Your task to perform on an android device: find photos in the google photos app Image 0: 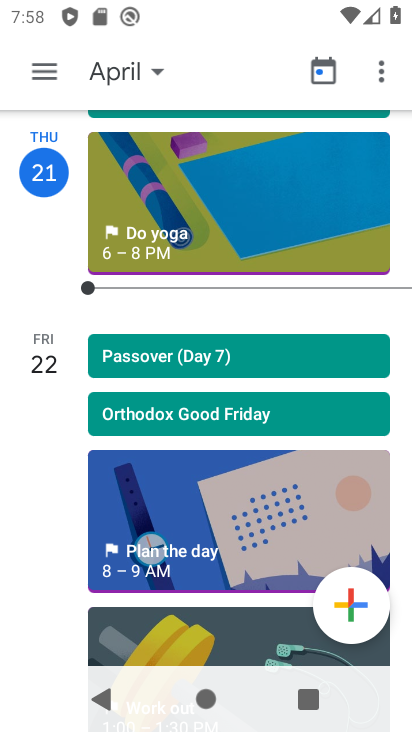
Step 0: press back button
Your task to perform on an android device: find photos in the google photos app Image 1: 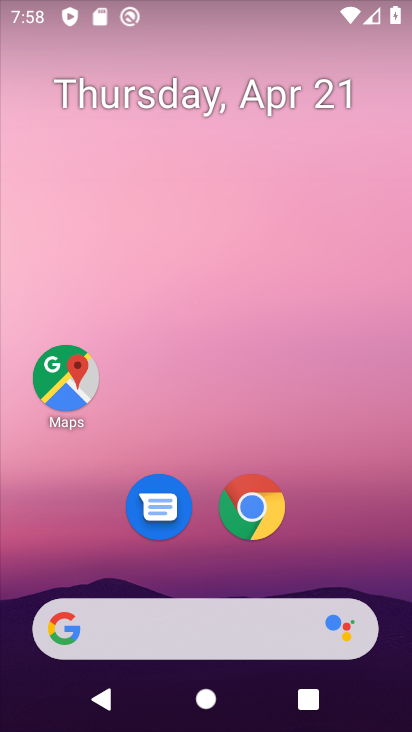
Step 1: drag from (205, 470) to (319, 20)
Your task to perform on an android device: find photos in the google photos app Image 2: 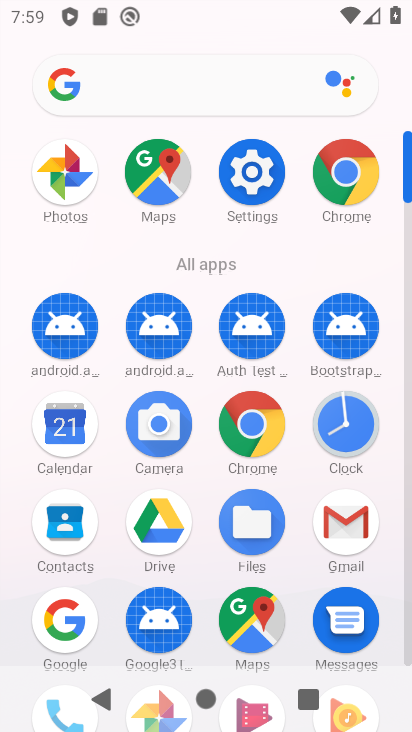
Step 2: drag from (187, 601) to (316, 116)
Your task to perform on an android device: find photos in the google photos app Image 3: 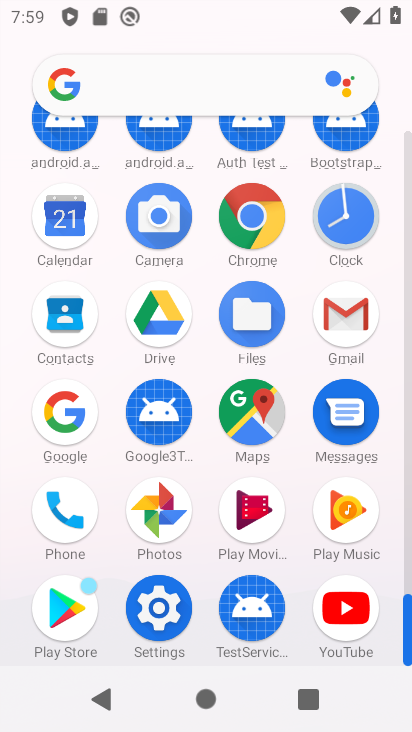
Step 3: click (160, 505)
Your task to perform on an android device: find photos in the google photos app Image 4: 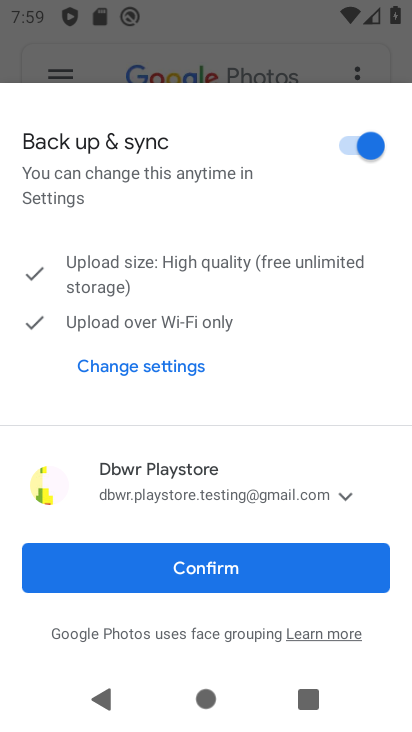
Step 4: click (186, 563)
Your task to perform on an android device: find photos in the google photos app Image 5: 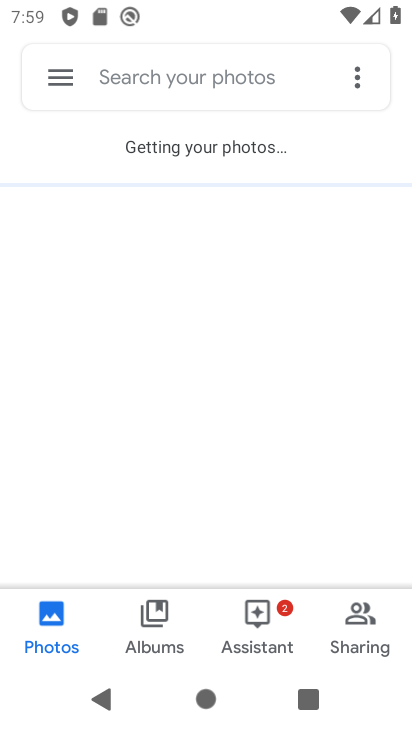
Step 5: task complete